Your task to perform on an android device: change notification settings in the gmail app Image 0: 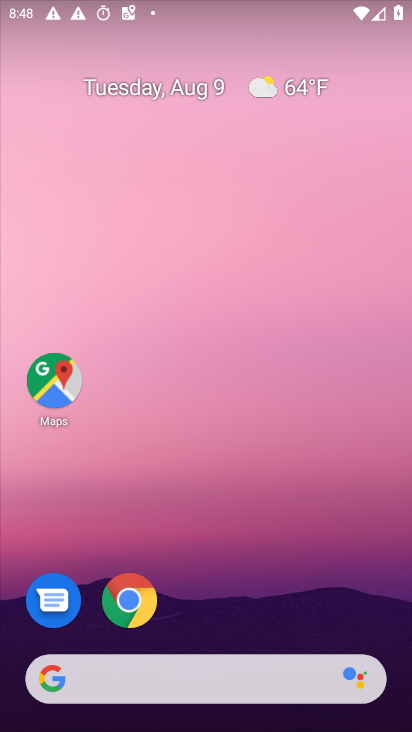
Step 0: press home button
Your task to perform on an android device: change notification settings in the gmail app Image 1: 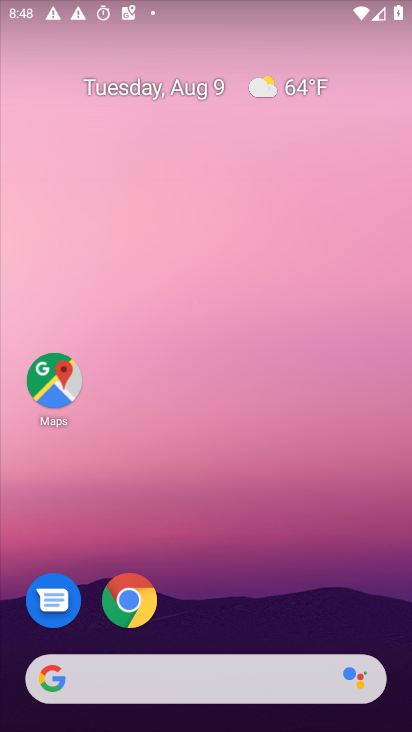
Step 1: drag from (248, 637) to (285, 114)
Your task to perform on an android device: change notification settings in the gmail app Image 2: 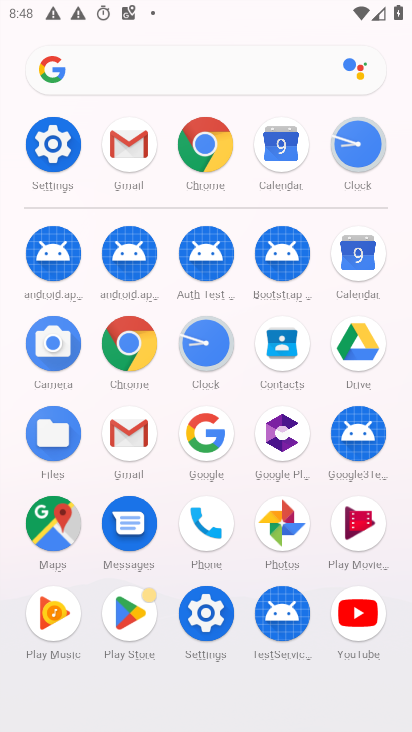
Step 2: click (128, 139)
Your task to perform on an android device: change notification settings in the gmail app Image 3: 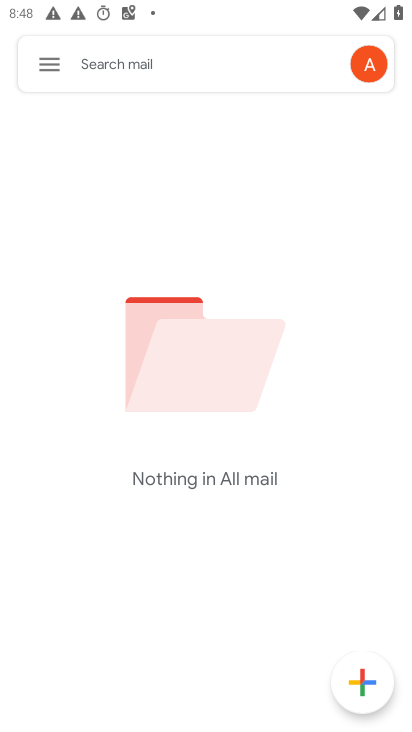
Step 3: click (53, 70)
Your task to perform on an android device: change notification settings in the gmail app Image 4: 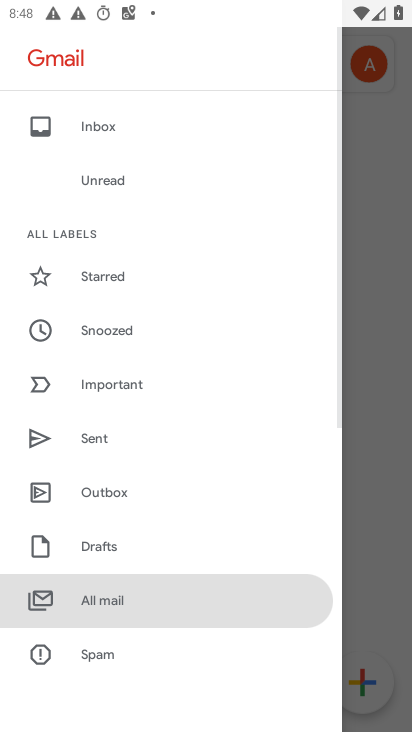
Step 4: drag from (197, 674) to (177, 140)
Your task to perform on an android device: change notification settings in the gmail app Image 5: 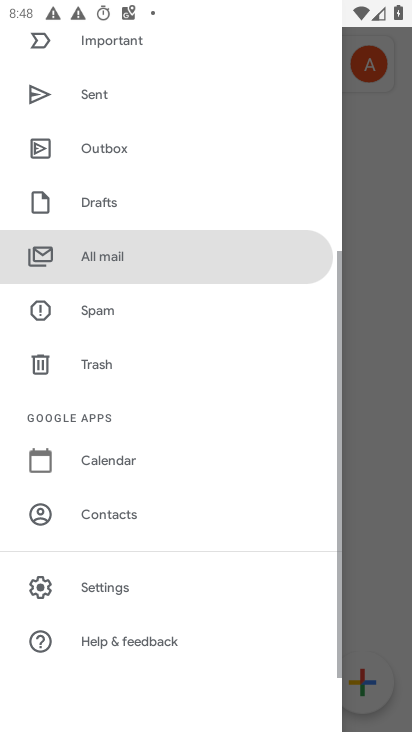
Step 5: click (89, 580)
Your task to perform on an android device: change notification settings in the gmail app Image 6: 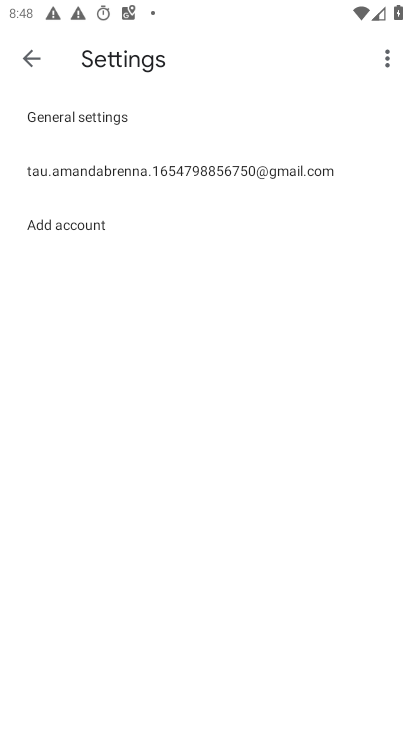
Step 6: click (173, 174)
Your task to perform on an android device: change notification settings in the gmail app Image 7: 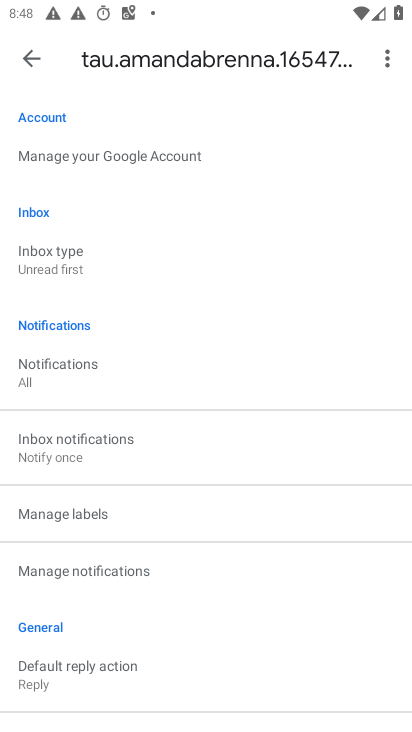
Step 7: click (73, 572)
Your task to perform on an android device: change notification settings in the gmail app Image 8: 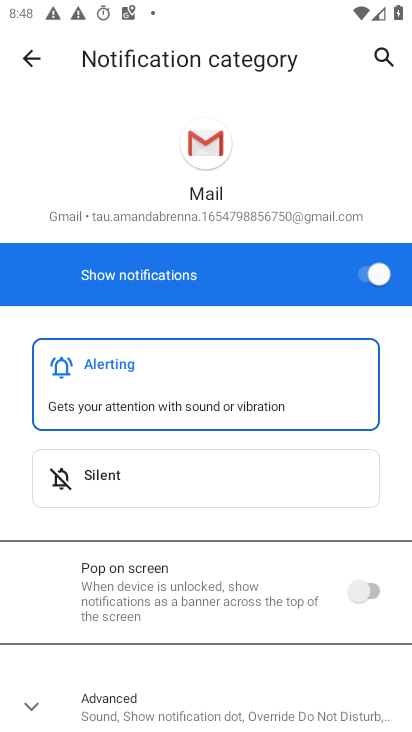
Step 8: click (378, 275)
Your task to perform on an android device: change notification settings in the gmail app Image 9: 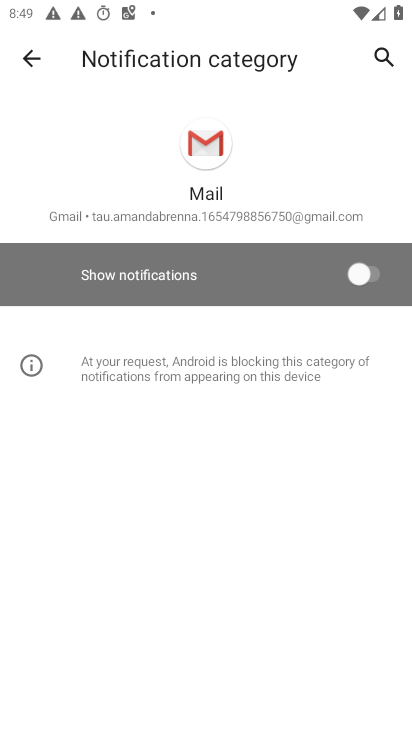
Step 9: task complete